Your task to perform on an android device: show emergency info Image 0: 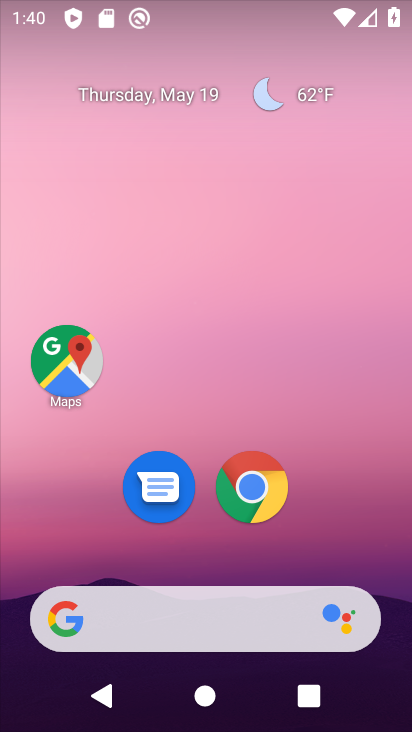
Step 0: press home button
Your task to perform on an android device: show emergency info Image 1: 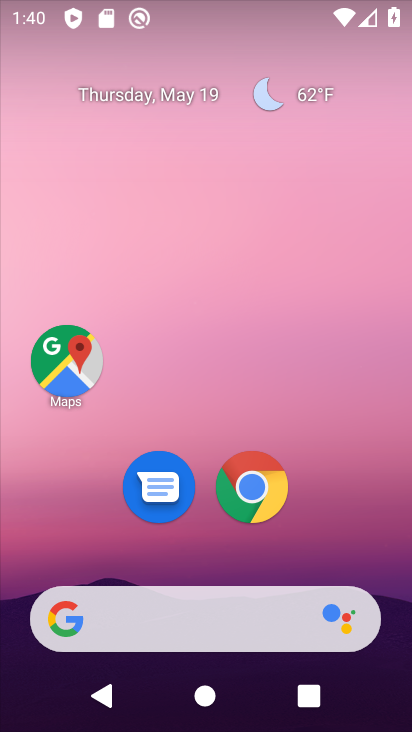
Step 1: drag from (319, 541) to (319, 128)
Your task to perform on an android device: show emergency info Image 2: 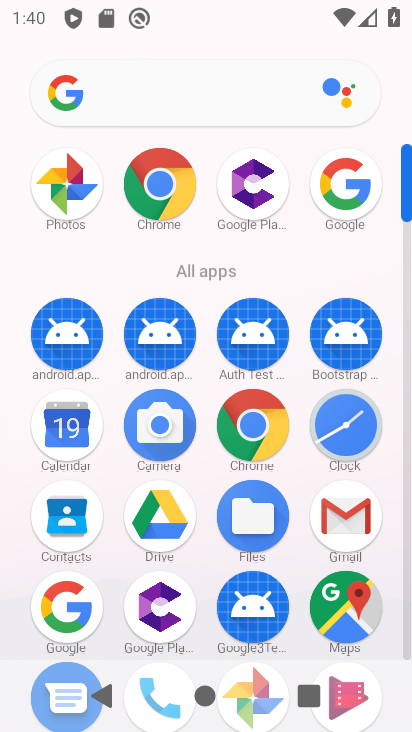
Step 2: click (403, 656)
Your task to perform on an android device: show emergency info Image 3: 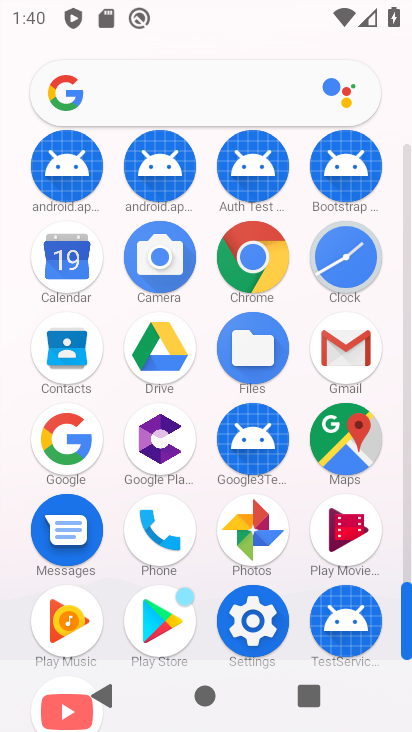
Step 3: click (276, 638)
Your task to perform on an android device: show emergency info Image 4: 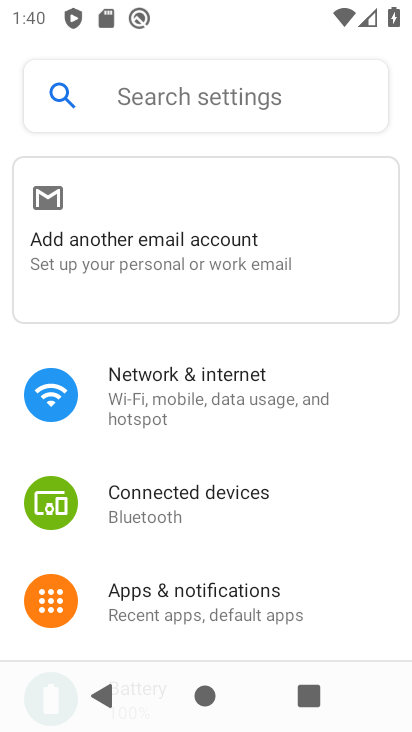
Step 4: drag from (276, 622) to (295, 207)
Your task to perform on an android device: show emergency info Image 5: 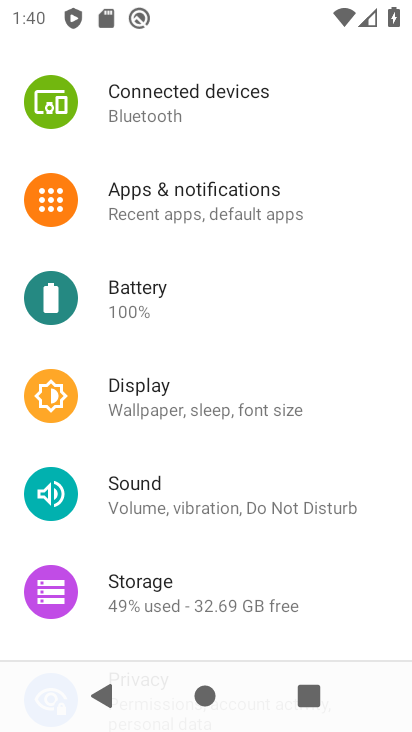
Step 5: drag from (235, 410) to (272, 143)
Your task to perform on an android device: show emergency info Image 6: 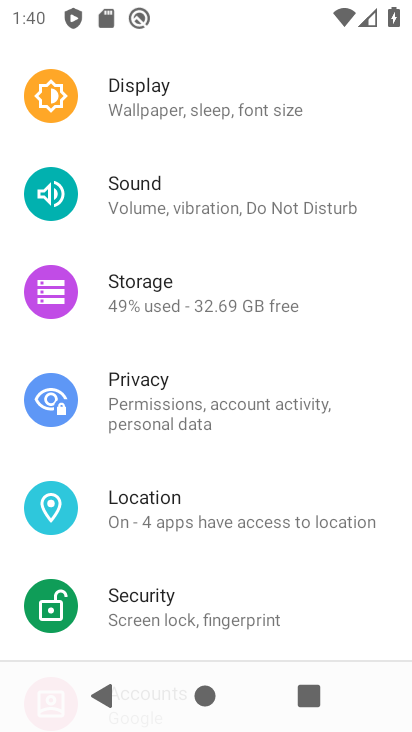
Step 6: drag from (207, 517) to (264, 163)
Your task to perform on an android device: show emergency info Image 7: 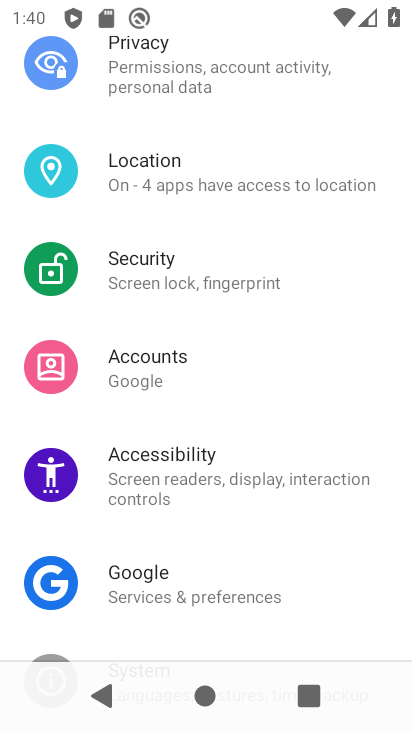
Step 7: drag from (135, 566) to (187, 181)
Your task to perform on an android device: show emergency info Image 8: 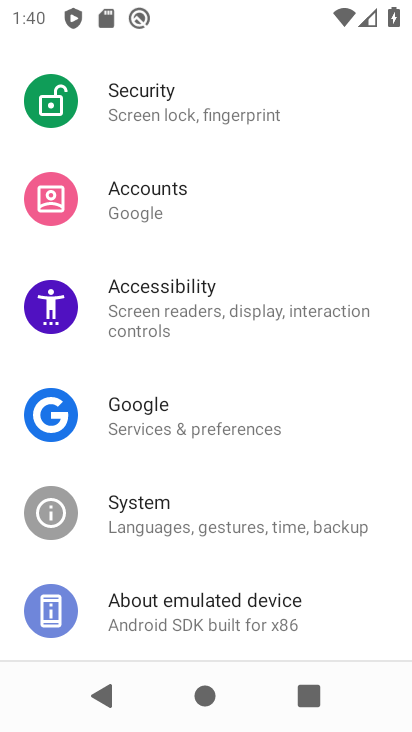
Step 8: click (233, 587)
Your task to perform on an android device: show emergency info Image 9: 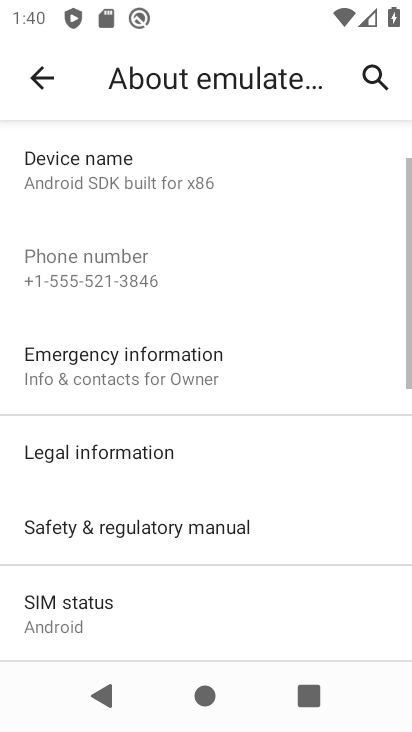
Step 9: click (156, 392)
Your task to perform on an android device: show emergency info Image 10: 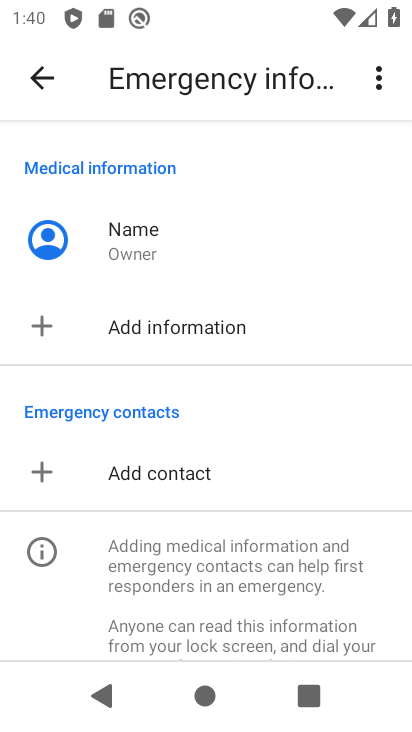
Step 10: task complete